Your task to perform on an android device: Show me popular videos on Youtube Image 0: 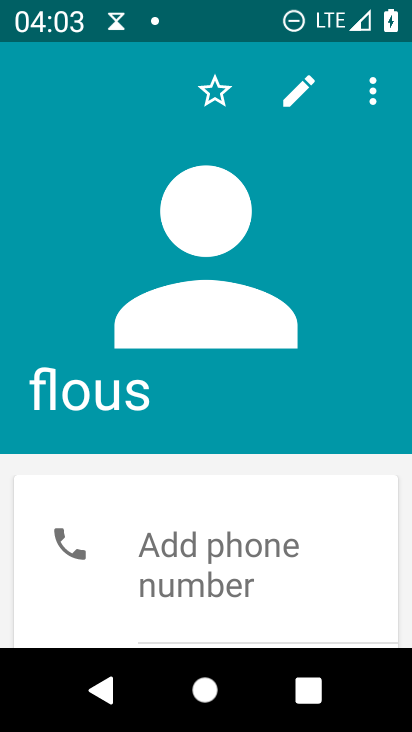
Step 0: press home button
Your task to perform on an android device: Show me popular videos on Youtube Image 1: 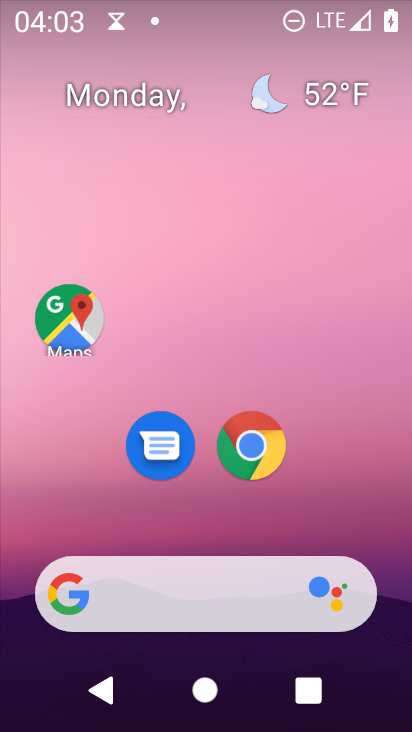
Step 1: drag from (214, 488) to (292, 14)
Your task to perform on an android device: Show me popular videos on Youtube Image 2: 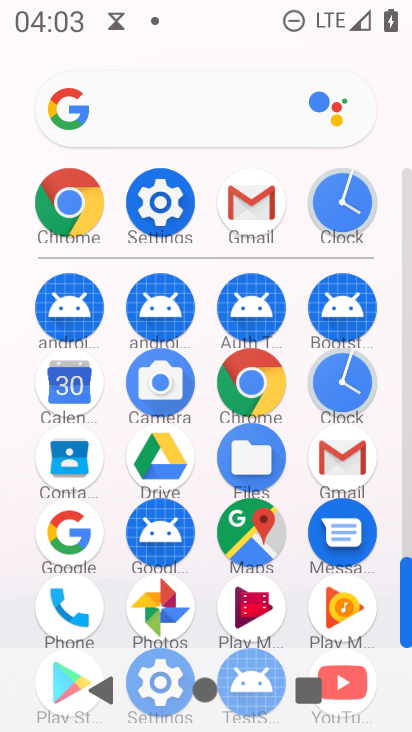
Step 2: drag from (282, 583) to (296, 266)
Your task to perform on an android device: Show me popular videos on Youtube Image 3: 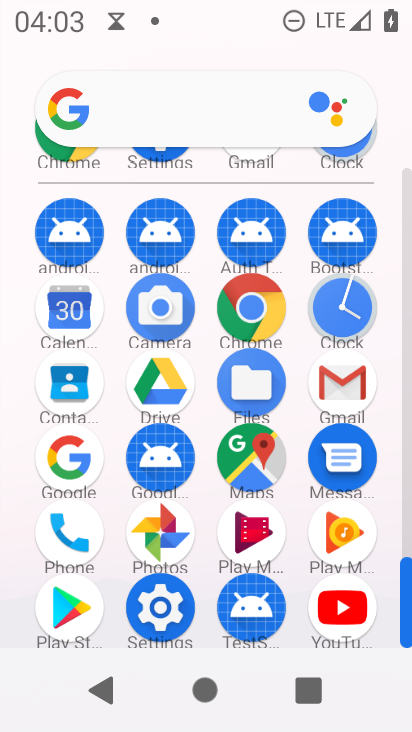
Step 3: click (348, 634)
Your task to perform on an android device: Show me popular videos on Youtube Image 4: 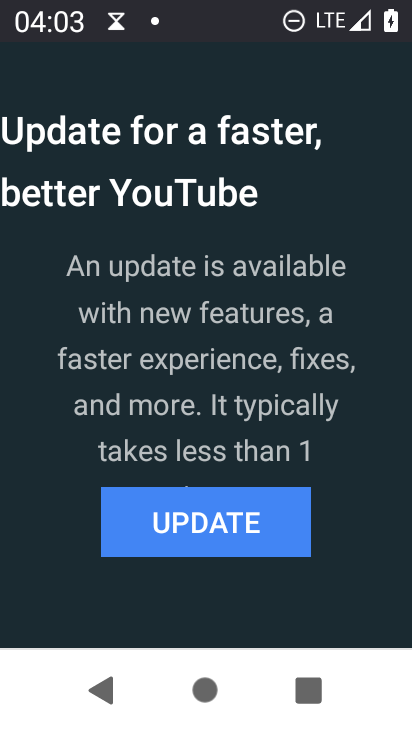
Step 4: click (222, 545)
Your task to perform on an android device: Show me popular videos on Youtube Image 5: 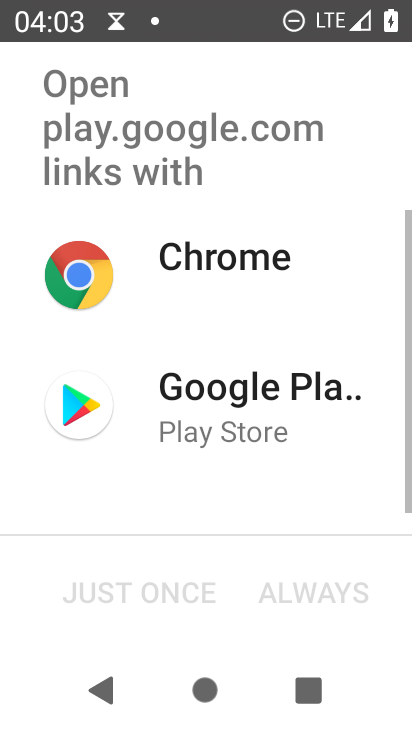
Step 5: click (219, 388)
Your task to perform on an android device: Show me popular videos on Youtube Image 6: 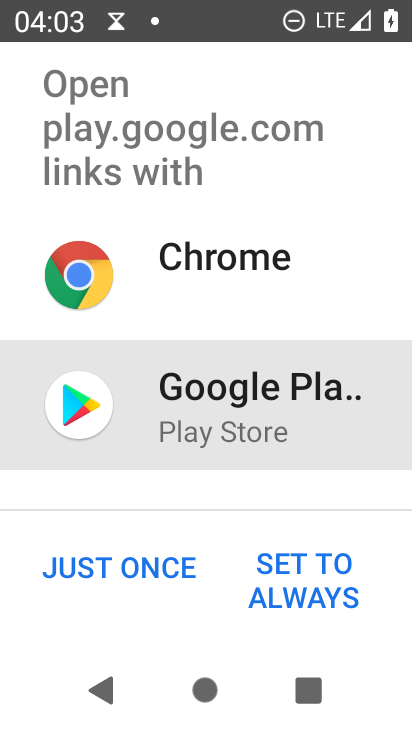
Step 6: click (164, 573)
Your task to perform on an android device: Show me popular videos on Youtube Image 7: 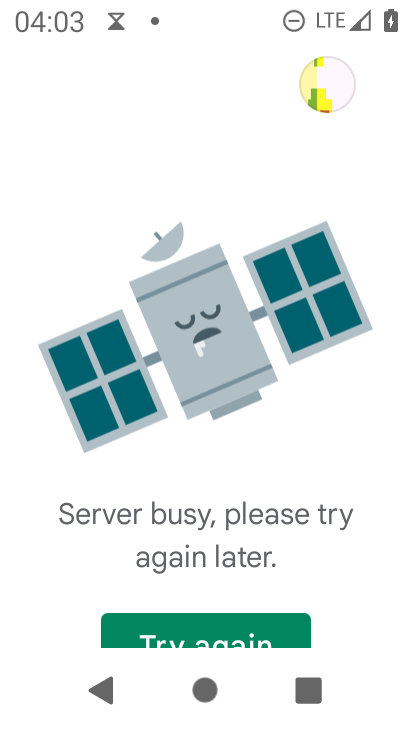
Step 7: click (190, 641)
Your task to perform on an android device: Show me popular videos on Youtube Image 8: 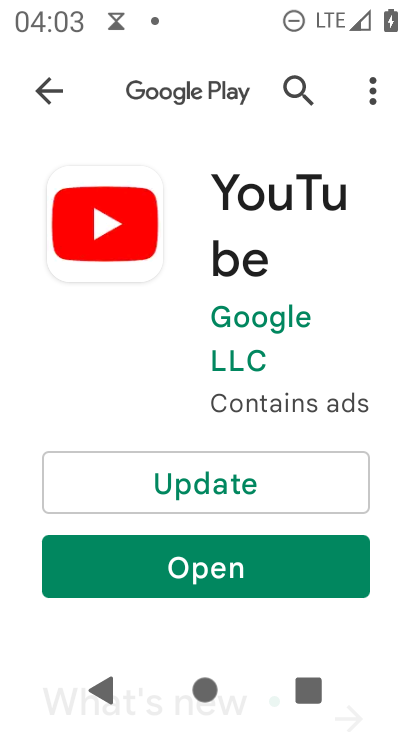
Step 8: click (239, 484)
Your task to perform on an android device: Show me popular videos on Youtube Image 9: 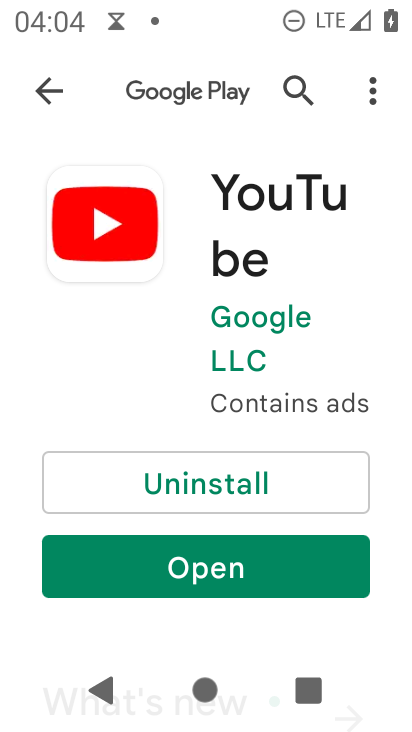
Step 9: click (265, 579)
Your task to perform on an android device: Show me popular videos on Youtube Image 10: 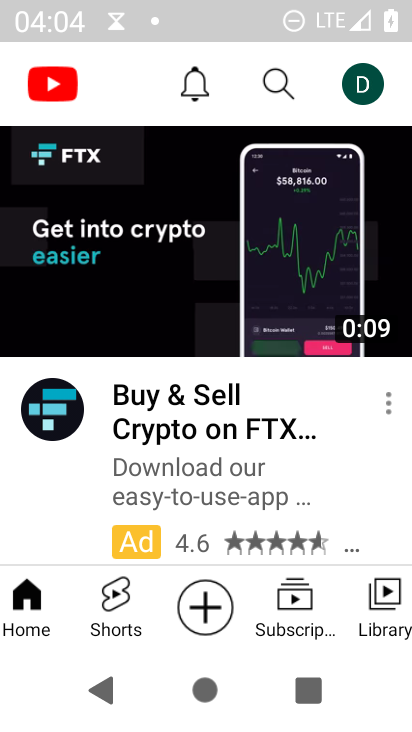
Step 10: drag from (155, 287) to (150, 343)
Your task to perform on an android device: Show me popular videos on Youtube Image 11: 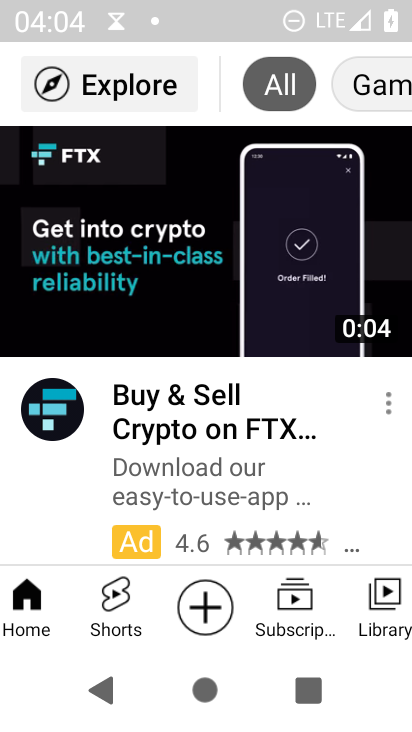
Step 11: click (108, 90)
Your task to perform on an android device: Show me popular videos on Youtube Image 12: 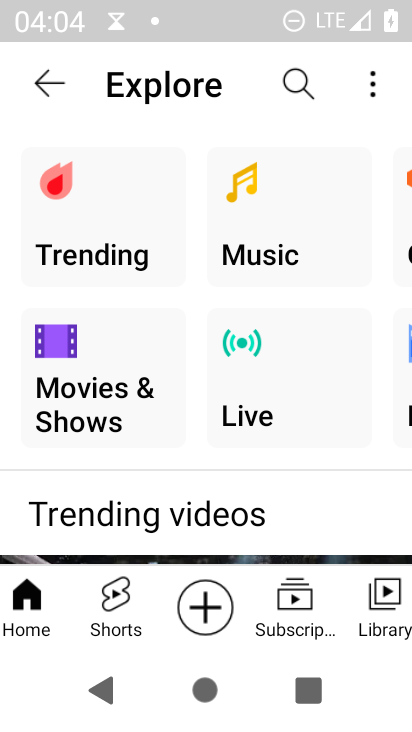
Step 12: click (103, 225)
Your task to perform on an android device: Show me popular videos on Youtube Image 13: 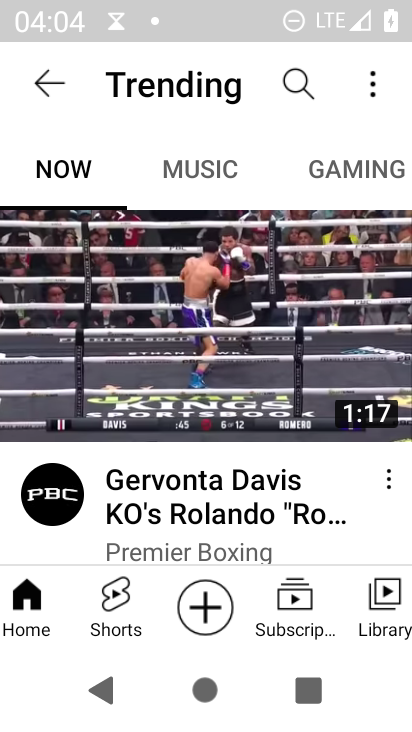
Step 13: task complete